Your task to perform on an android device: turn on data saver in the chrome app Image 0: 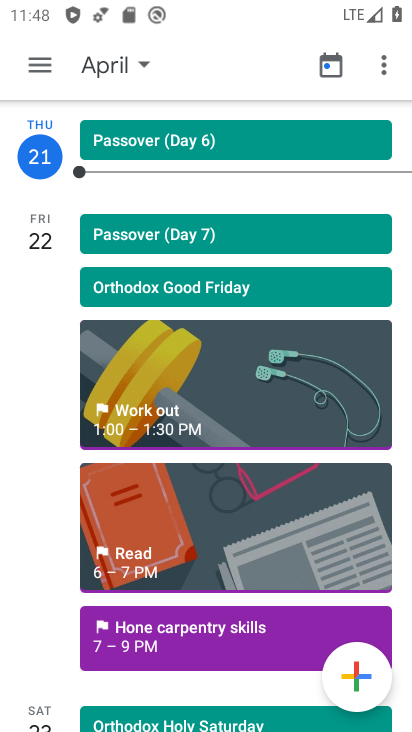
Step 0: press back button
Your task to perform on an android device: turn on data saver in the chrome app Image 1: 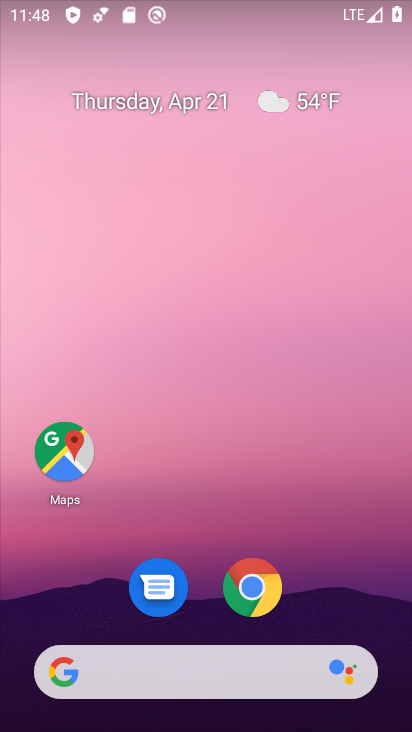
Step 1: click (254, 581)
Your task to perform on an android device: turn on data saver in the chrome app Image 2: 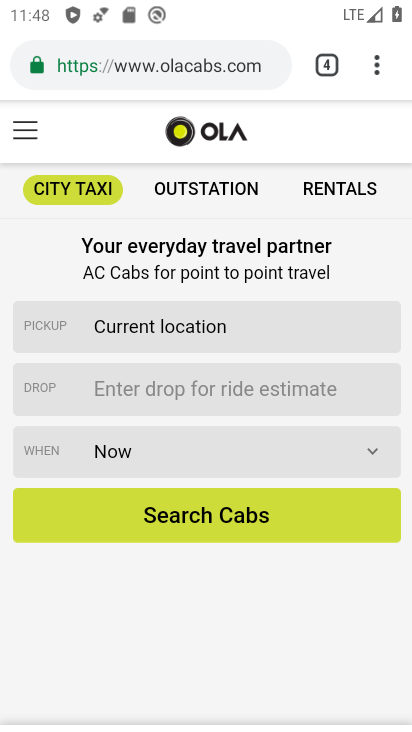
Step 2: drag from (372, 66) to (150, 630)
Your task to perform on an android device: turn on data saver in the chrome app Image 3: 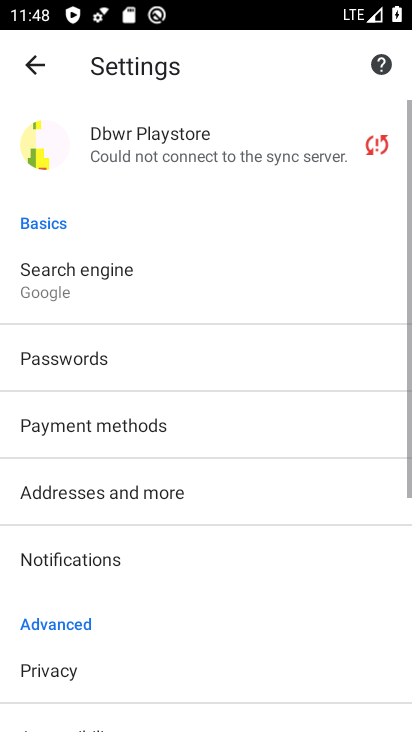
Step 3: drag from (130, 657) to (266, 151)
Your task to perform on an android device: turn on data saver in the chrome app Image 4: 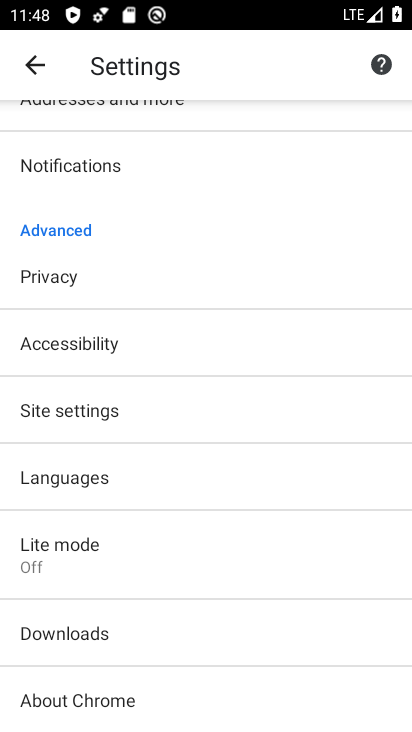
Step 4: click (92, 564)
Your task to perform on an android device: turn on data saver in the chrome app Image 5: 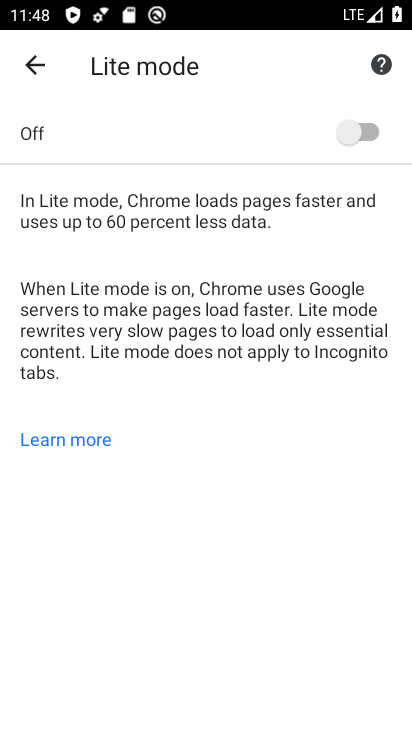
Step 5: click (347, 125)
Your task to perform on an android device: turn on data saver in the chrome app Image 6: 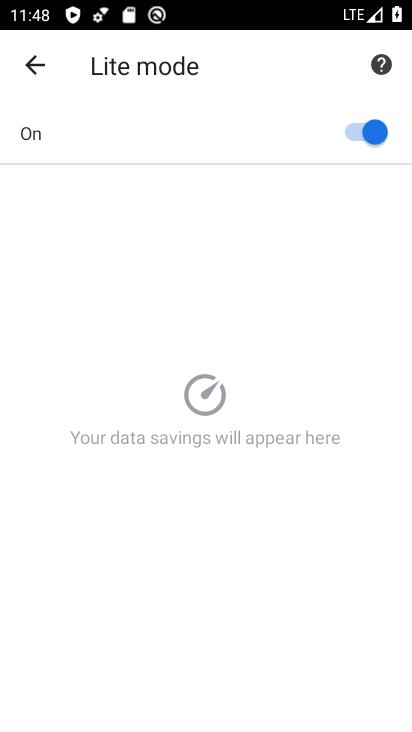
Step 6: task complete